Your task to perform on an android device: Go to Reddit.com Image 0: 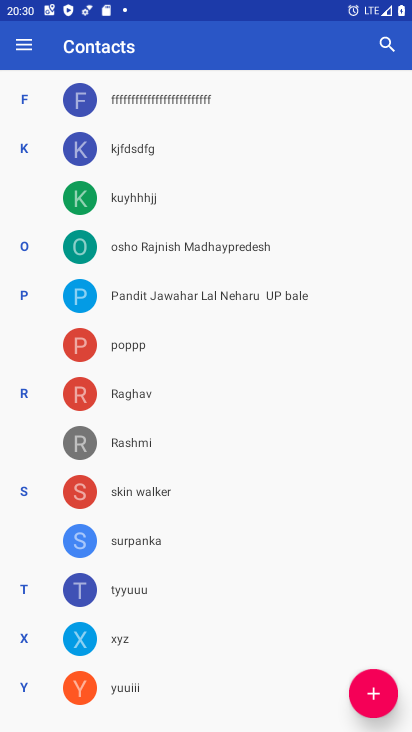
Step 0: press home button
Your task to perform on an android device: Go to Reddit.com Image 1: 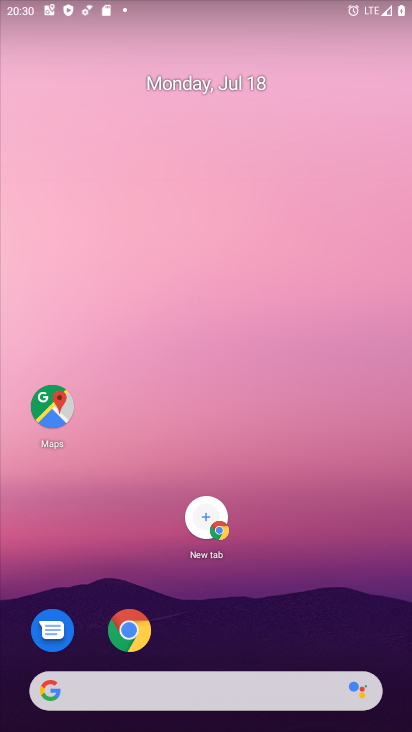
Step 1: drag from (188, 652) to (169, 234)
Your task to perform on an android device: Go to Reddit.com Image 2: 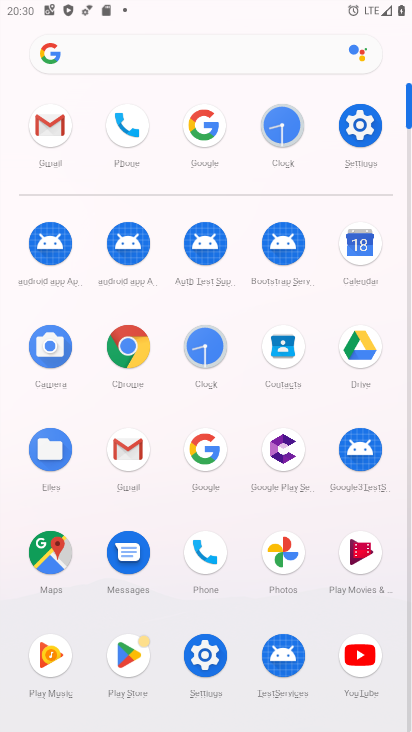
Step 2: click (201, 448)
Your task to perform on an android device: Go to Reddit.com Image 3: 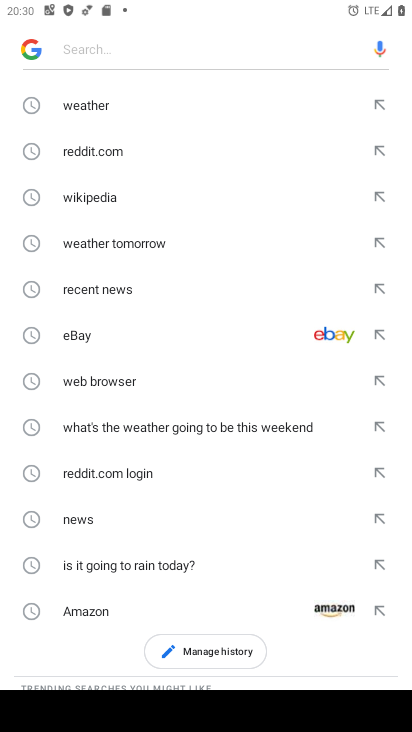
Step 3: click (99, 156)
Your task to perform on an android device: Go to Reddit.com Image 4: 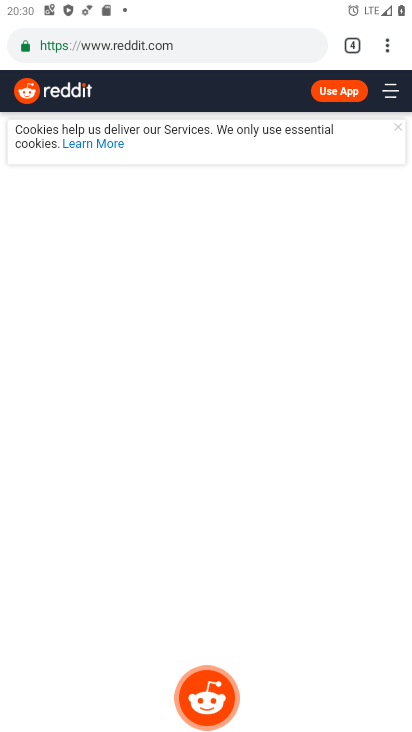
Step 4: task complete